Your task to perform on an android device: set default search engine in the chrome app Image 0: 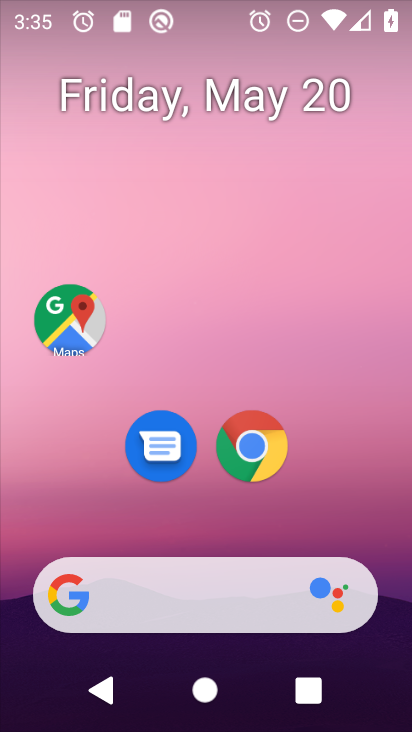
Step 0: click (252, 448)
Your task to perform on an android device: set default search engine in the chrome app Image 1: 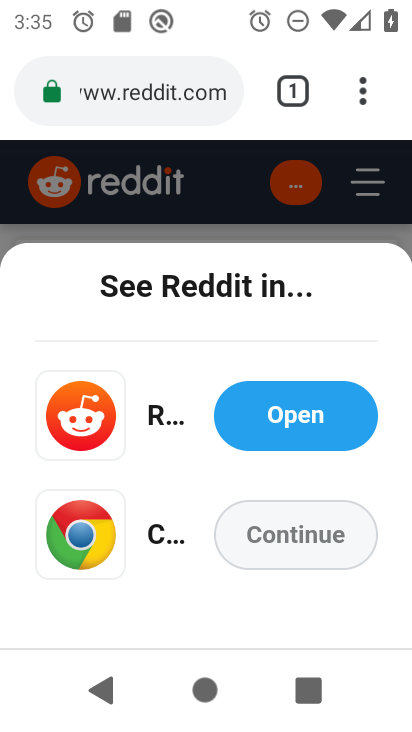
Step 1: click (361, 95)
Your task to perform on an android device: set default search engine in the chrome app Image 2: 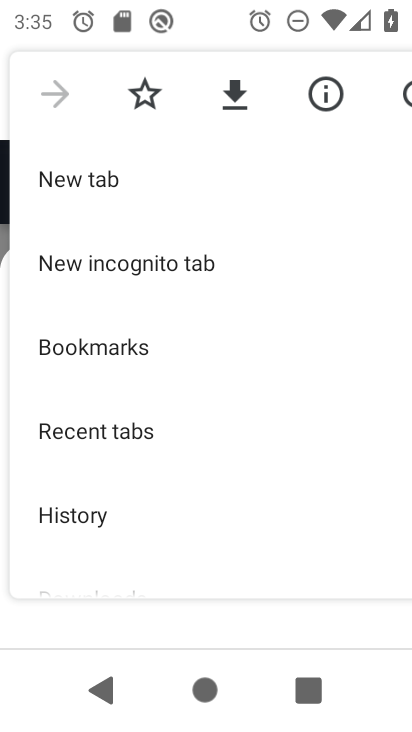
Step 2: drag from (182, 447) to (230, 134)
Your task to perform on an android device: set default search engine in the chrome app Image 3: 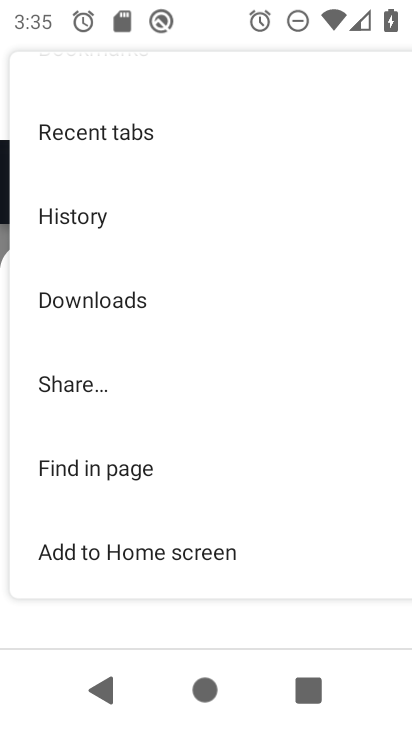
Step 3: drag from (238, 451) to (238, 123)
Your task to perform on an android device: set default search engine in the chrome app Image 4: 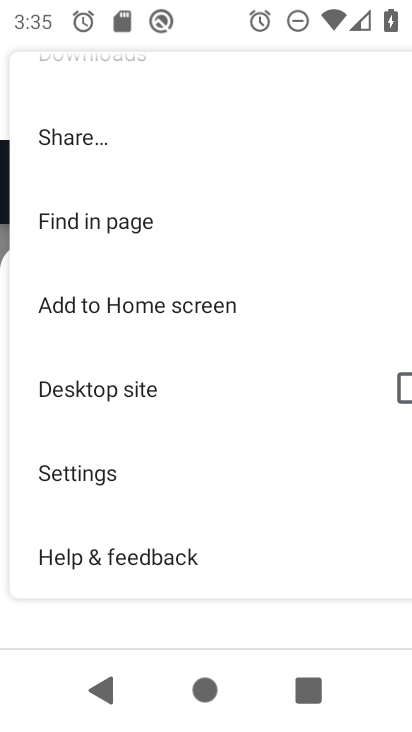
Step 4: click (80, 480)
Your task to perform on an android device: set default search engine in the chrome app Image 5: 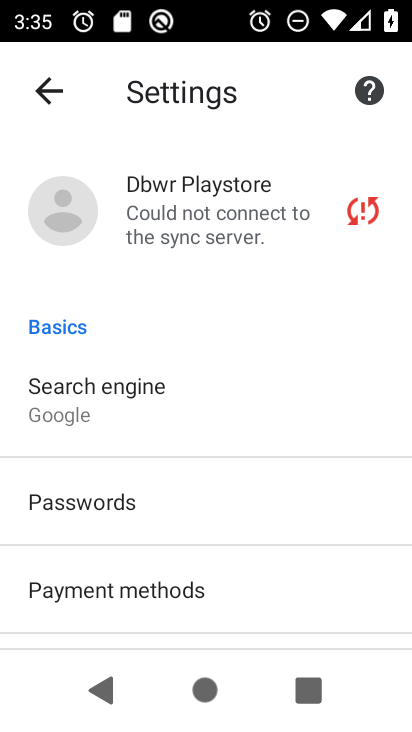
Step 5: click (75, 414)
Your task to perform on an android device: set default search engine in the chrome app Image 6: 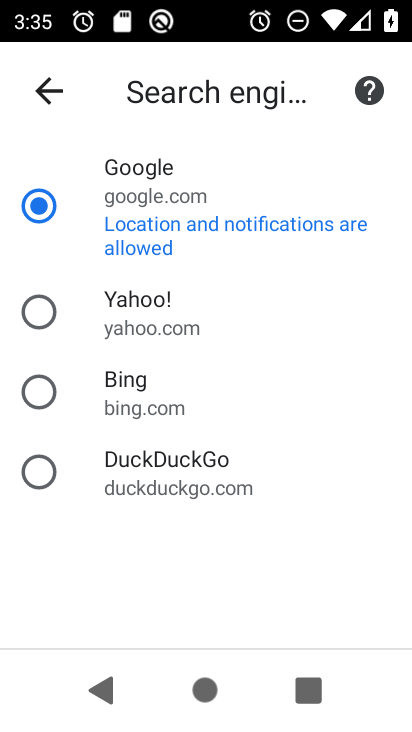
Step 6: click (52, 315)
Your task to perform on an android device: set default search engine in the chrome app Image 7: 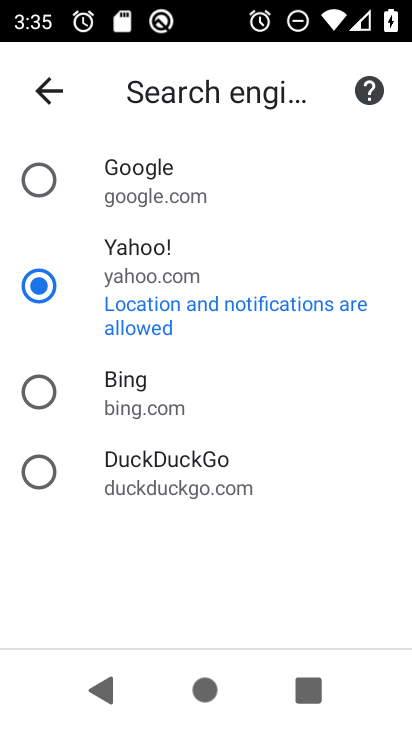
Step 7: task complete